Your task to perform on an android device: Search for Italian restaurants on Maps Image 0: 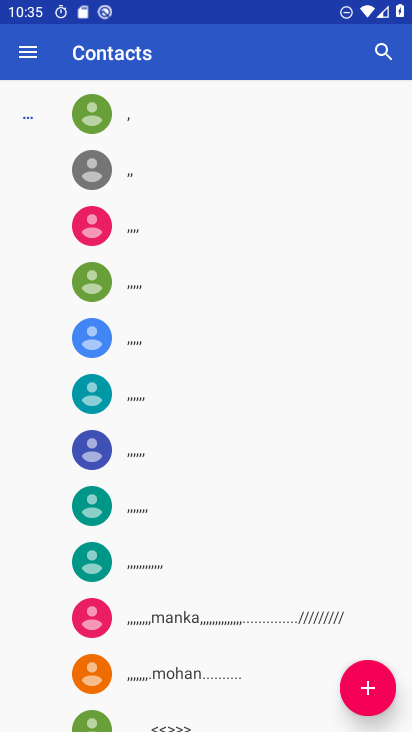
Step 0: press home button
Your task to perform on an android device: Search for Italian restaurants on Maps Image 1: 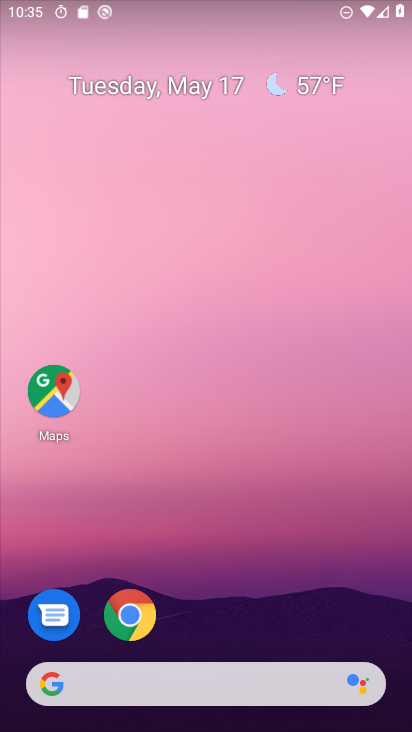
Step 1: click (47, 392)
Your task to perform on an android device: Search for Italian restaurants on Maps Image 2: 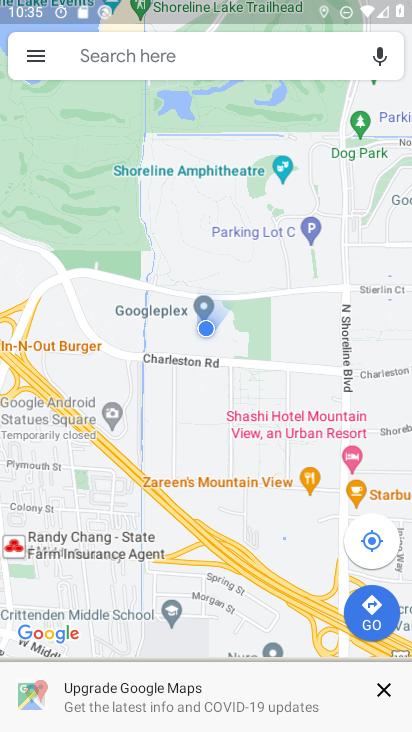
Step 2: click (181, 60)
Your task to perform on an android device: Search for Italian restaurants on Maps Image 3: 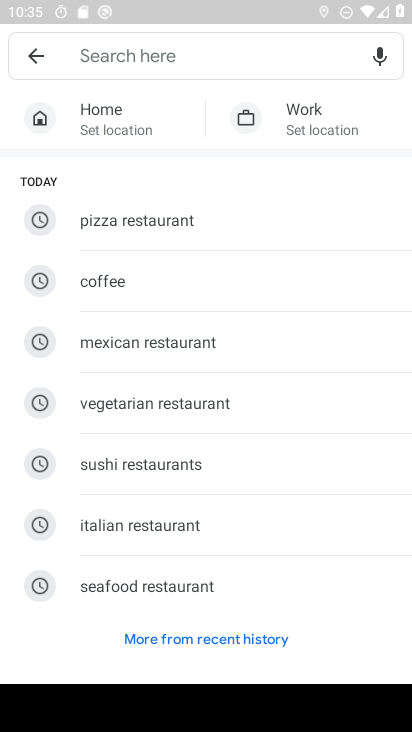
Step 3: click (162, 538)
Your task to perform on an android device: Search for Italian restaurants on Maps Image 4: 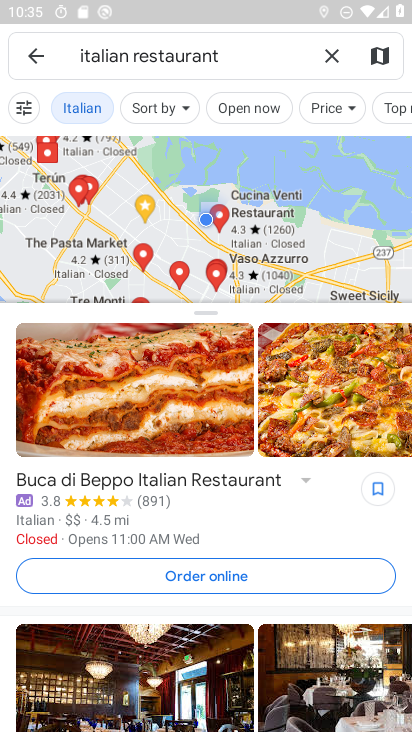
Step 4: task complete